Your task to perform on an android device: change text size in settings app Image 0: 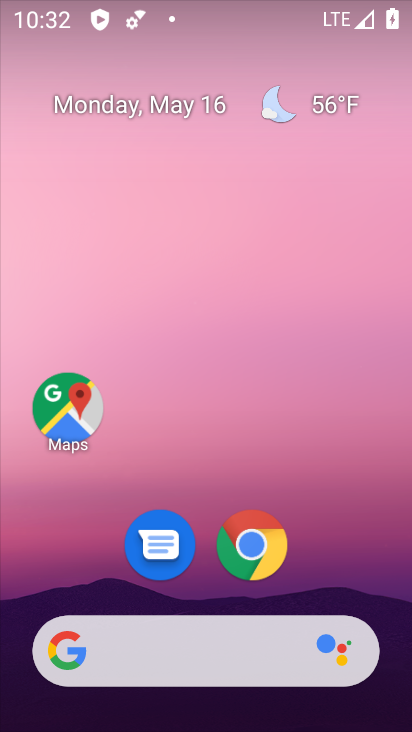
Step 0: drag from (317, 577) to (273, 173)
Your task to perform on an android device: change text size in settings app Image 1: 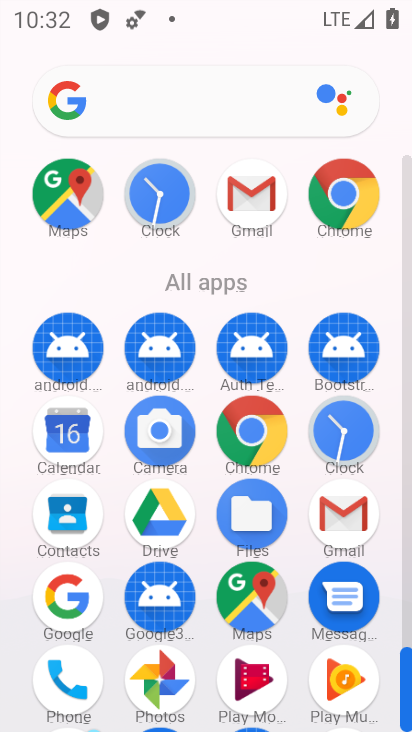
Step 1: drag from (205, 547) to (237, 243)
Your task to perform on an android device: change text size in settings app Image 2: 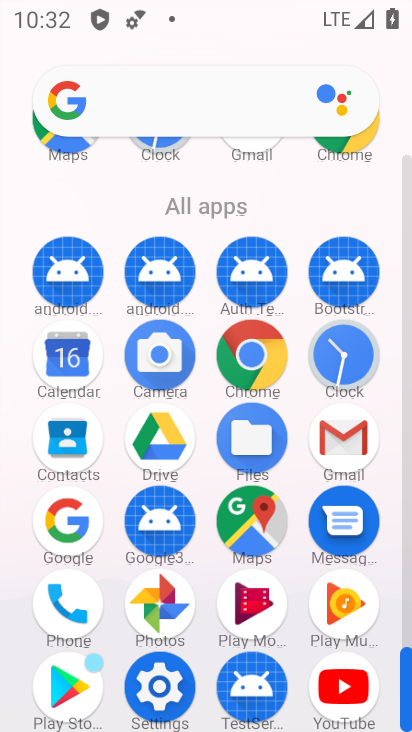
Step 2: click (159, 682)
Your task to perform on an android device: change text size in settings app Image 3: 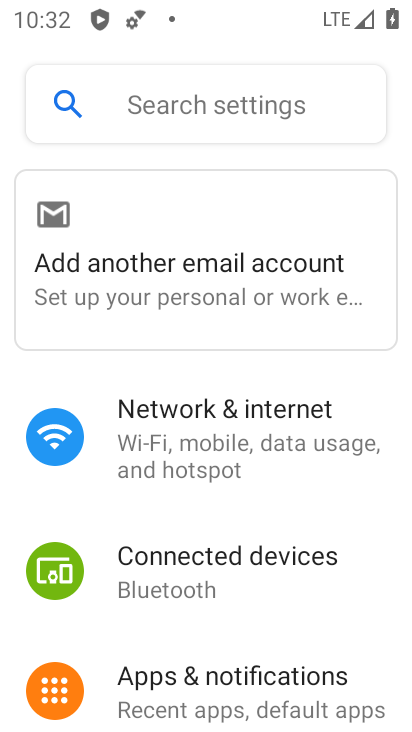
Step 3: drag from (214, 602) to (232, 467)
Your task to perform on an android device: change text size in settings app Image 4: 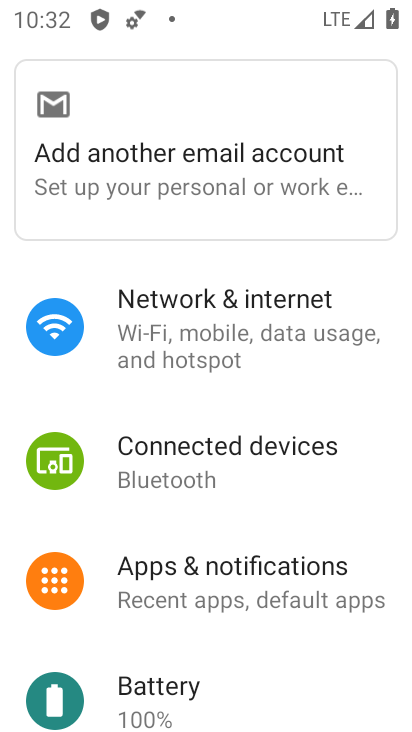
Step 4: drag from (202, 651) to (237, 520)
Your task to perform on an android device: change text size in settings app Image 5: 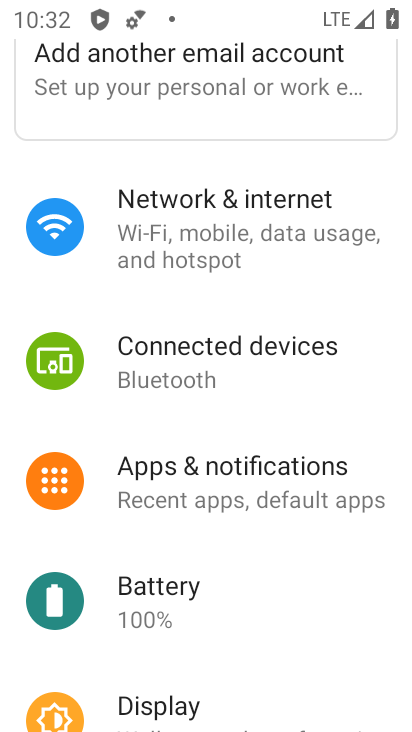
Step 5: drag from (186, 645) to (247, 464)
Your task to perform on an android device: change text size in settings app Image 6: 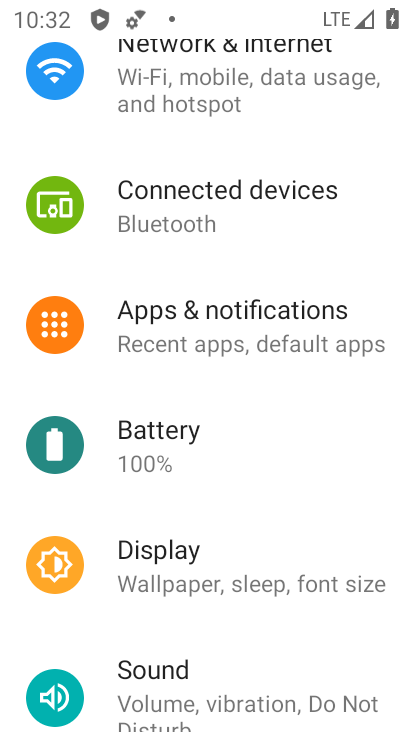
Step 6: drag from (189, 641) to (245, 492)
Your task to perform on an android device: change text size in settings app Image 7: 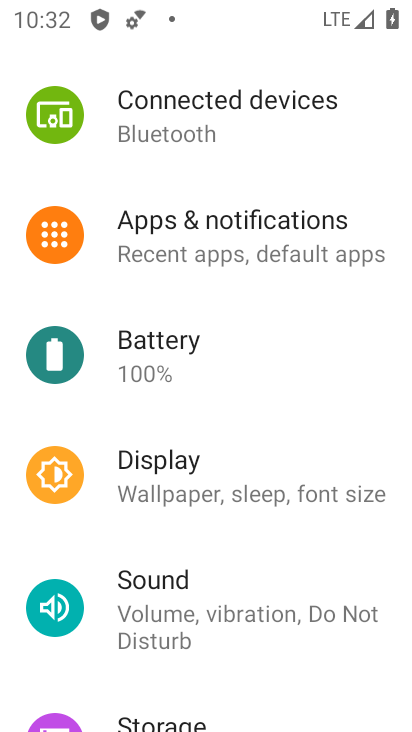
Step 7: drag from (187, 667) to (251, 545)
Your task to perform on an android device: change text size in settings app Image 8: 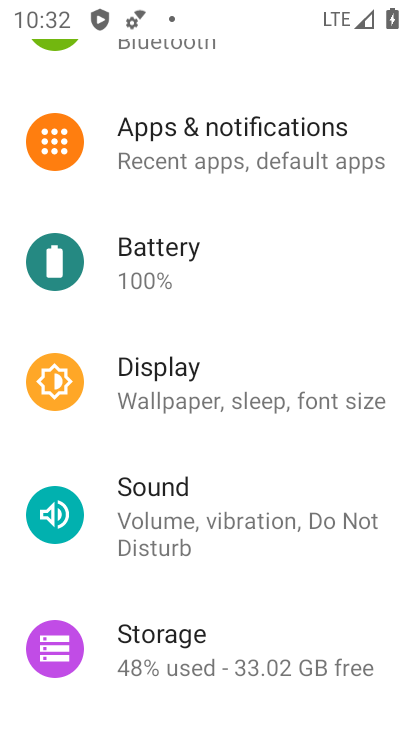
Step 8: drag from (207, 588) to (265, 482)
Your task to perform on an android device: change text size in settings app Image 9: 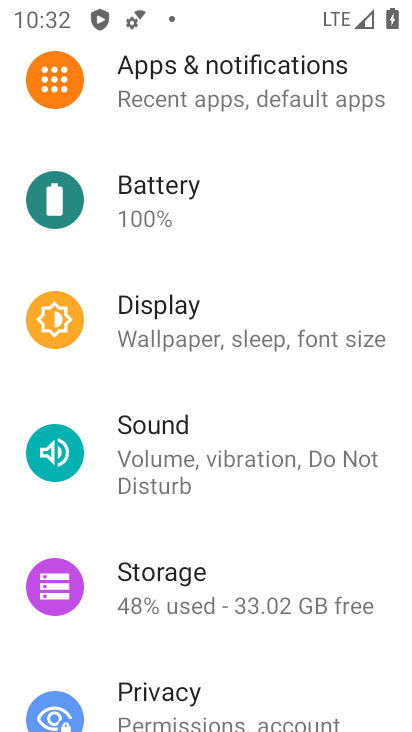
Step 9: drag from (162, 646) to (226, 527)
Your task to perform on an android device: change text size in settings app Image 10: 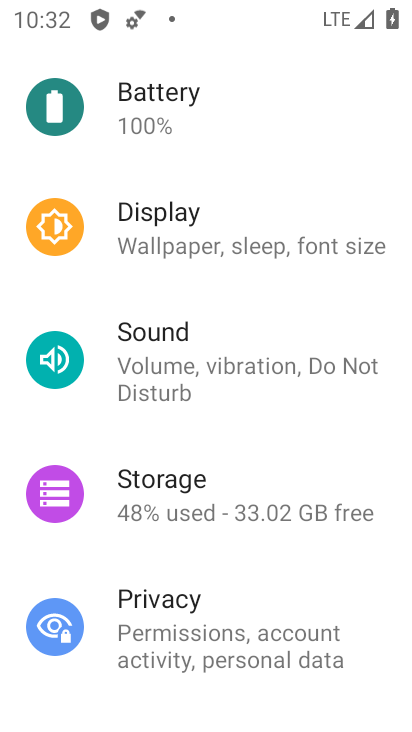
Step 10: drag from (163, 692) to (245, 553)
Your task to perform on an android device: change text size in settings app Image 11: 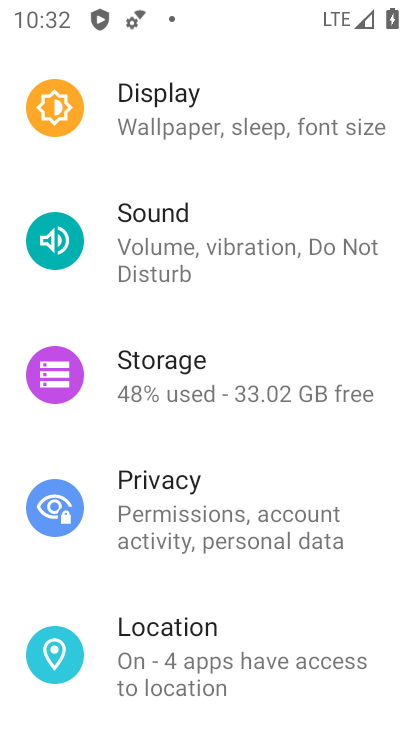
Step 11: drag from (208, 591) to (275, 481)
Your task to perform on an android device: change text size in settings app Image 12: 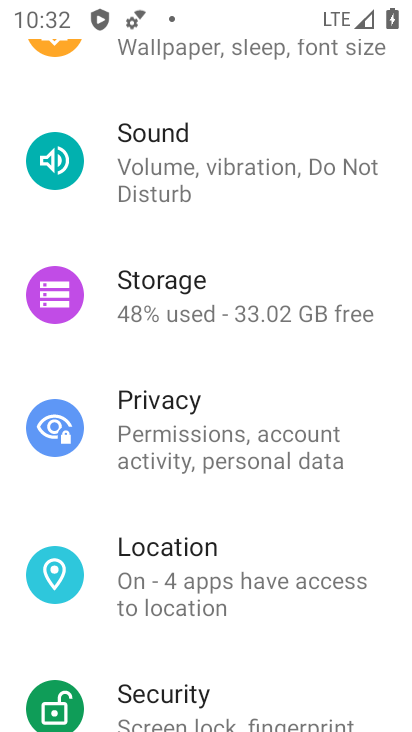
Step 12: drag from (174, 658) to (267, 528)
Your task to perform on an android device: change text size in settings app Image 13: 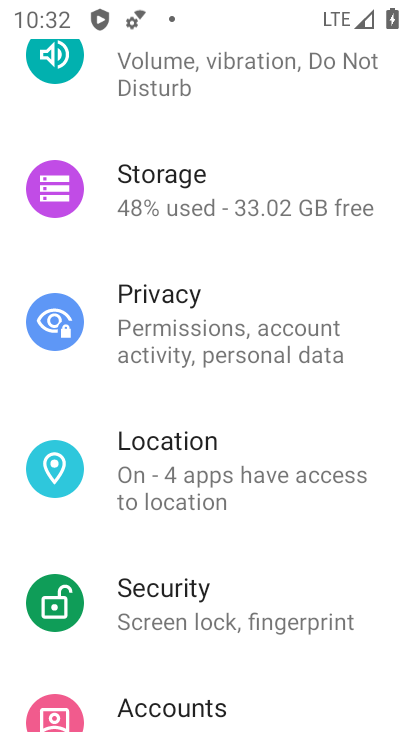
Step 13: drag from (162, 665) to (277, 518)
Your task to perform on an android device: change text size in settings app Image 14: 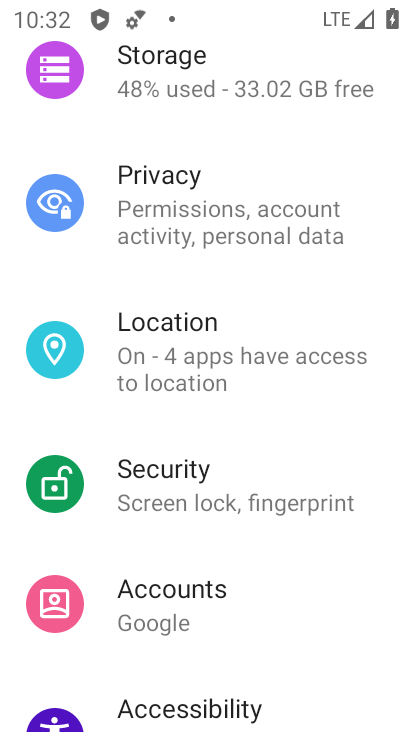
Step 14: drag from (133, 666) to (251, 489)
Your task to perform on an android device: change text size in settings app Image 15: 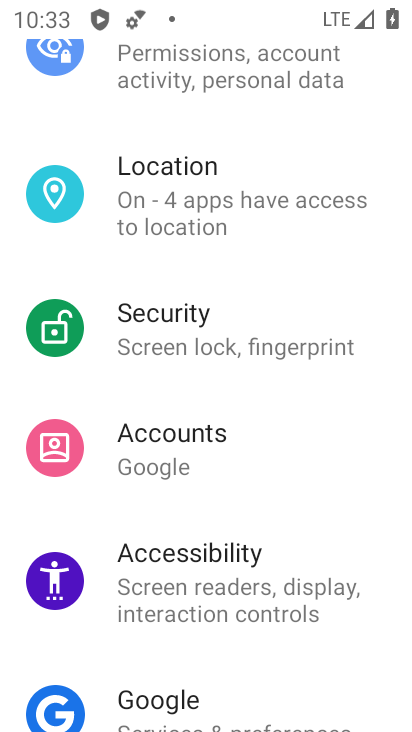
Step 15: click (172, 555)
Your task to perform on an android device: change text size in settings app Image 16: 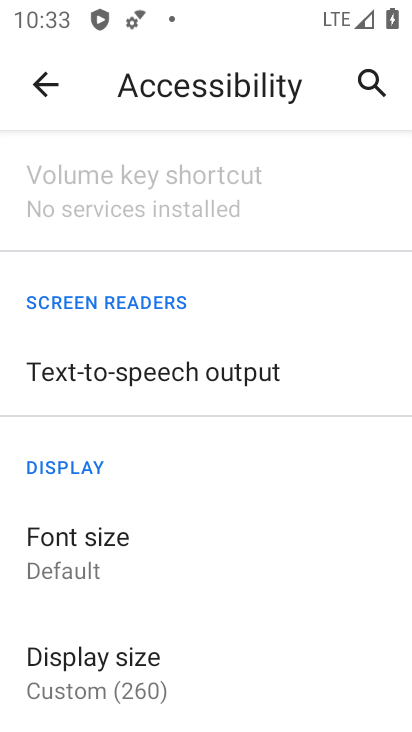
Step 16: click (69, 534)
Your task to perform on an android device: change text size in settings app Image 17: 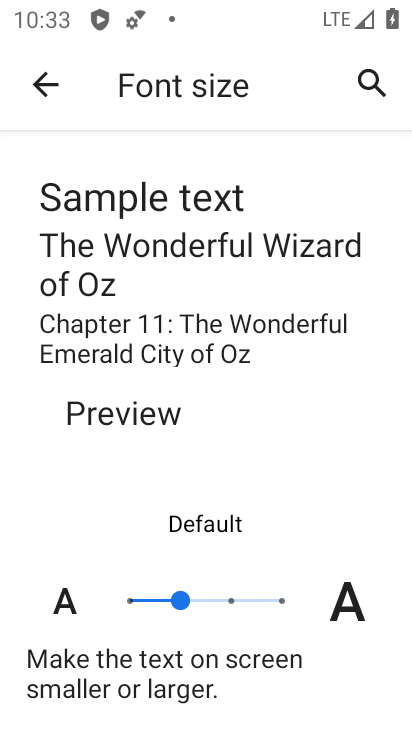
Step 17: click (222, 598)
Your task to perform on an android device: change text size in settings app Image 18: 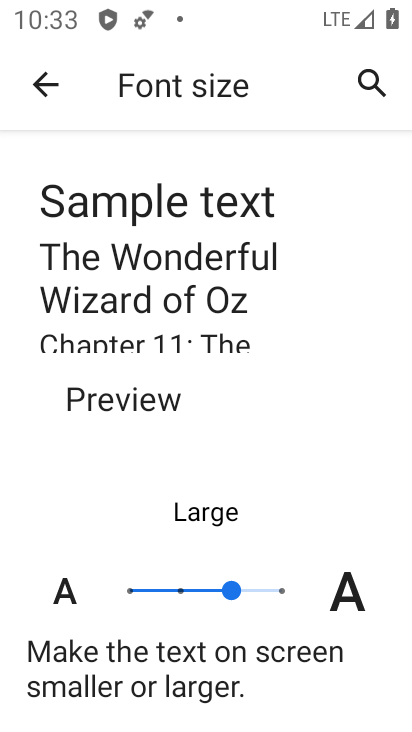
Step 18: task complete